Your task to perform on an android device: Go to Yahoo.com Image 0: 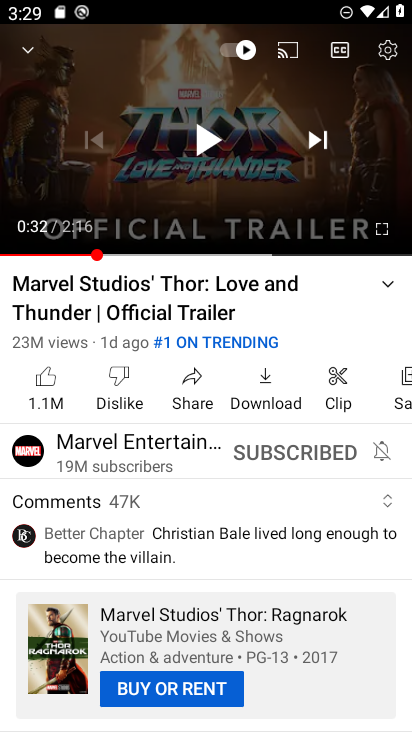
Step 0: press home button
Your task to perform on an android device: Go to Yahoo.com Image 1: 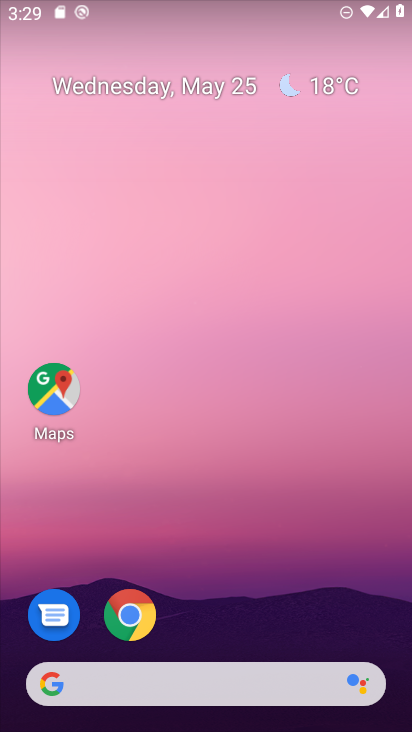
Step 1: click (248, 678)
Your task to perform on an android device: Go to Yahoo.com Image 2: 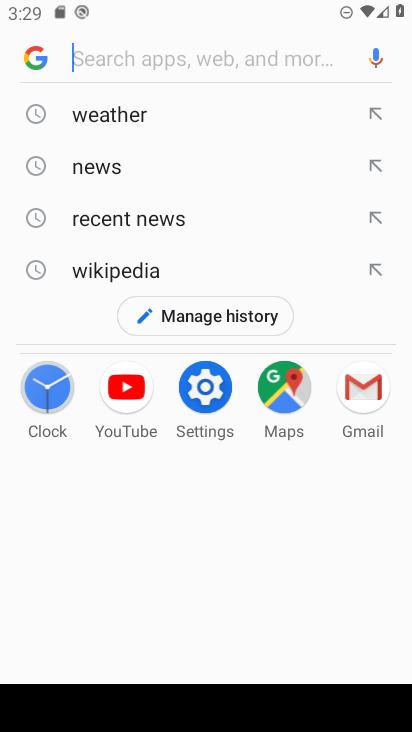
Step 2: type "yahoo.com"
Your task to perform on an android device: Go to Yahoo.com Image 3: 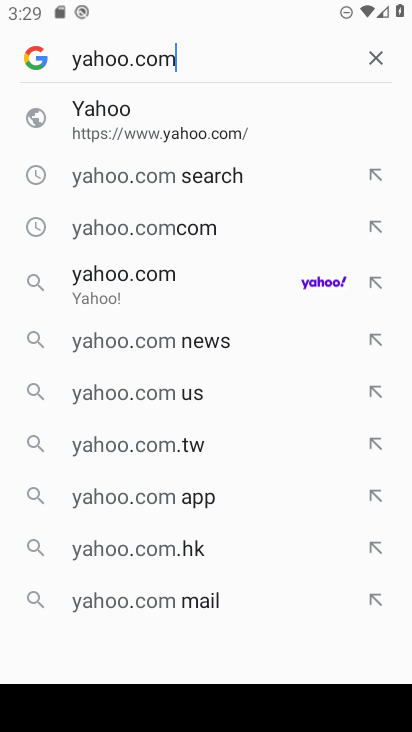
Step 3: click (146, 289)
Your task to perform on an android device: Go to Yahoo.com Image 4: 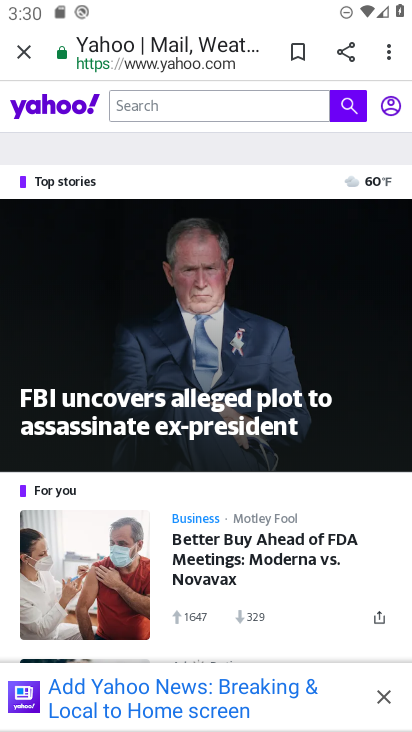
Step 4: task complete